Your task to perform on an android device: open a new tab in the chrome app Image 0: 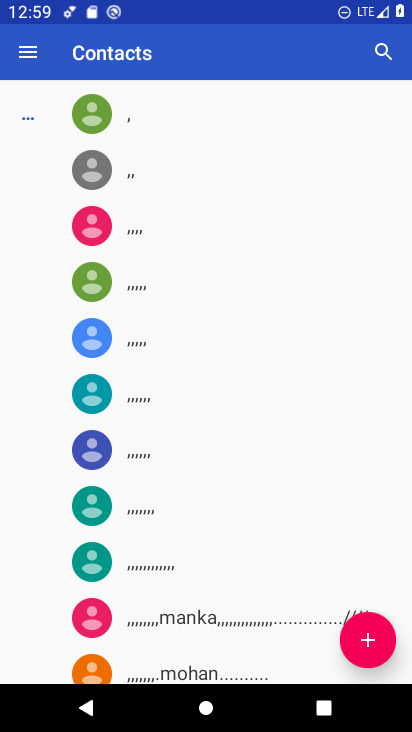
Step 0: press home button
Your task to perform on an android device: open a new tab in the chrome app Image 1: 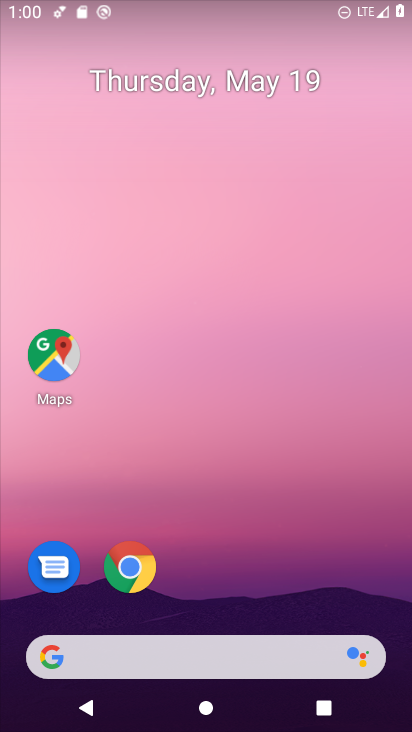
Step 1: click (137, 573)
Your task to perform on an android device: open a new tab in the chrome app Image 2: 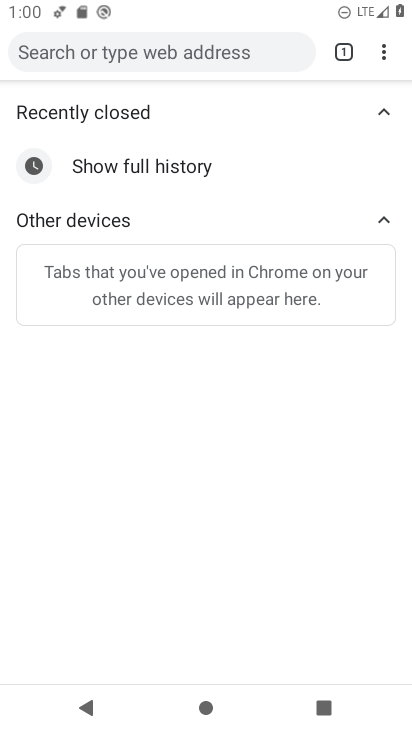
Step 2: click (382, 52)
Your task to perform on an android device: open a new tab in the chrome app Image 3: 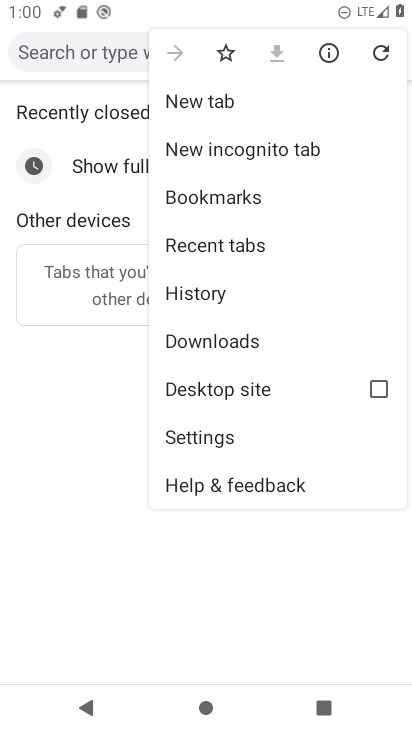
Step 3: click (303, 101)
Your task to perform on an android device: open a new tab in the chrome app Image 4: 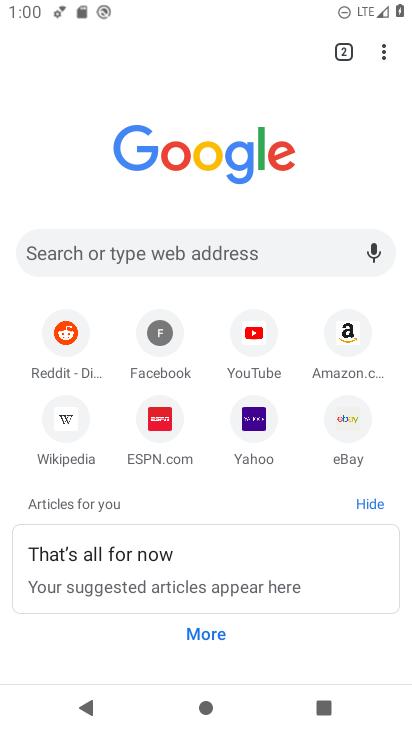
Step 4: task complete